Your task to perform on an android device: Search for seafood restaurants on Google Maps Image 0: 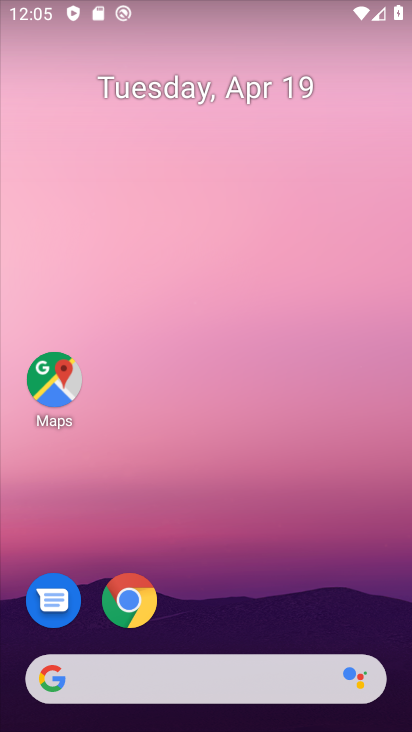
Step 0: click (178, 72)
Your task to perform on an android device: Search for seafood restaurants on Google Maps Image 1: 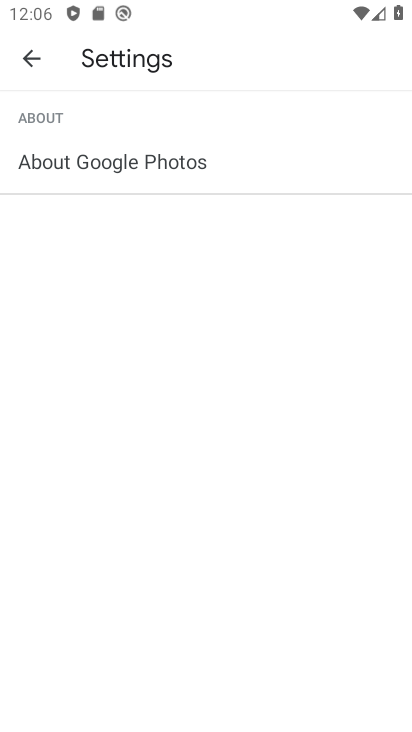
Step 1: press back button
Your task to perform on an android device: Search for seafood restaurants on Google Maps Image 2: 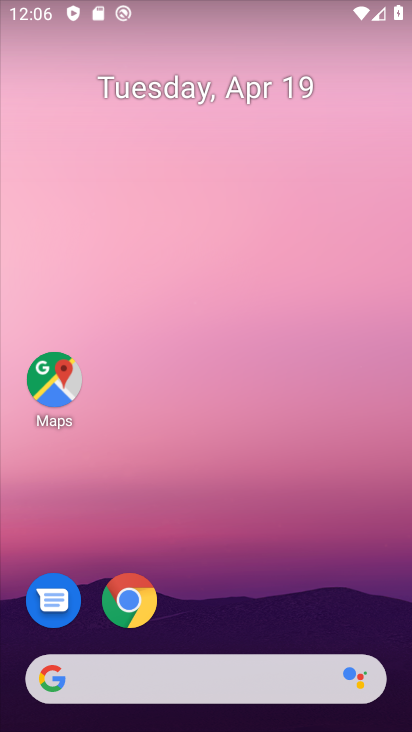
Step 2: click (69, 369)
Your task to perform on an android device: Search for seafood restaurants on Google Maps Image 3: 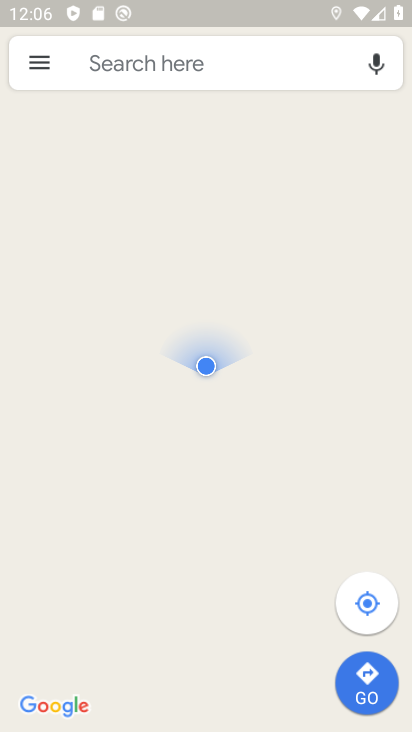
Step 3: click (160, 65)
Your task to perform on an android device: Search for seafood restaurants on Google Maps Image 4: 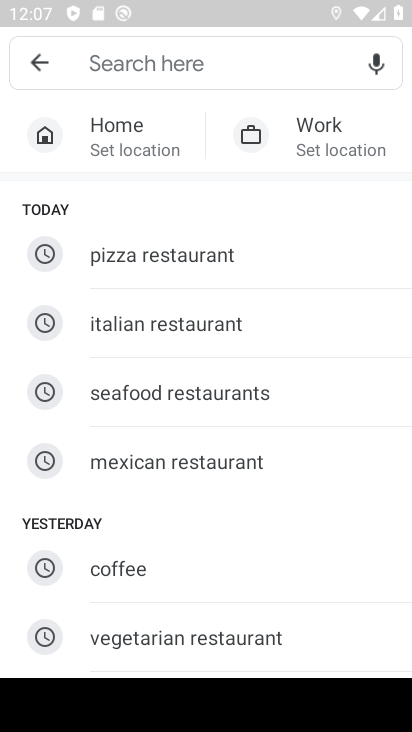
Step 4: click (253, 390)
Your task to perform on an android device: Search for seafood restaurants on Google Maps Image 5: 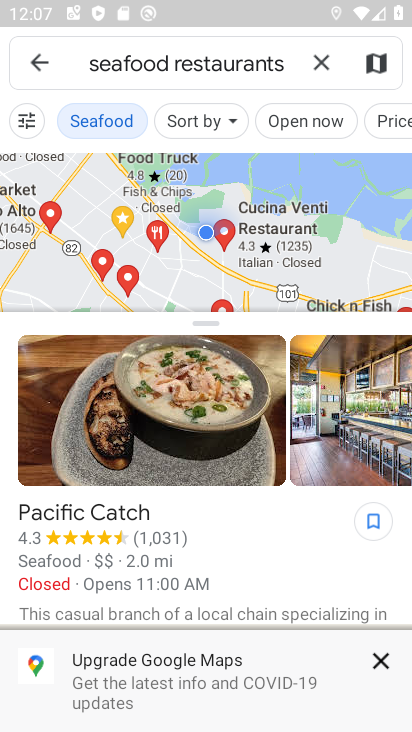
Step 5: task complete